Your task to perform on an android device: set the timer Image 0: 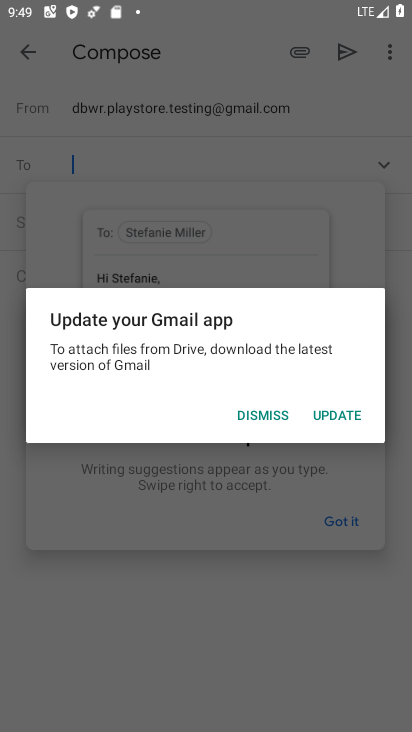
Step 0: press home button
Your task to perform on an android device: set the timer Image 1: 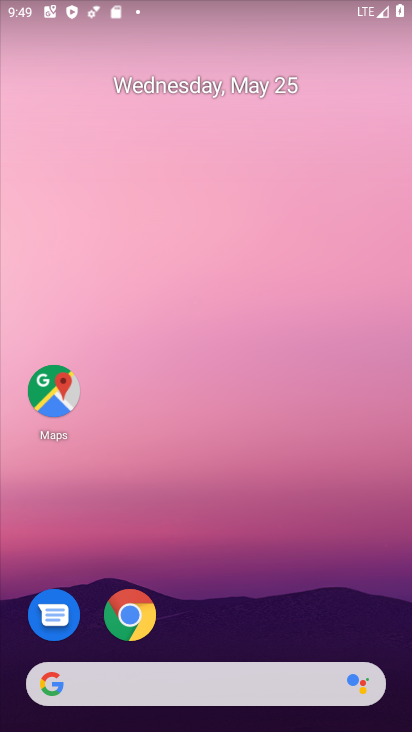
Step 1: drag from (234, 583) to (175, 62)
Your task to perform on an android device: set the timer Image 2: 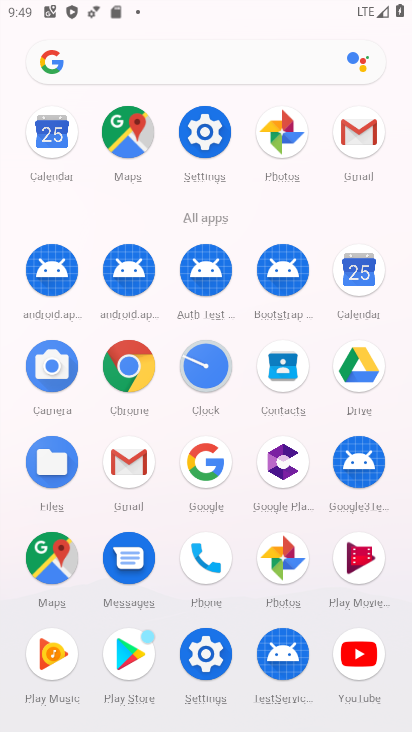
Step 2: click (213, 361)
Your task to perform on an android device: set the timer Image 3: 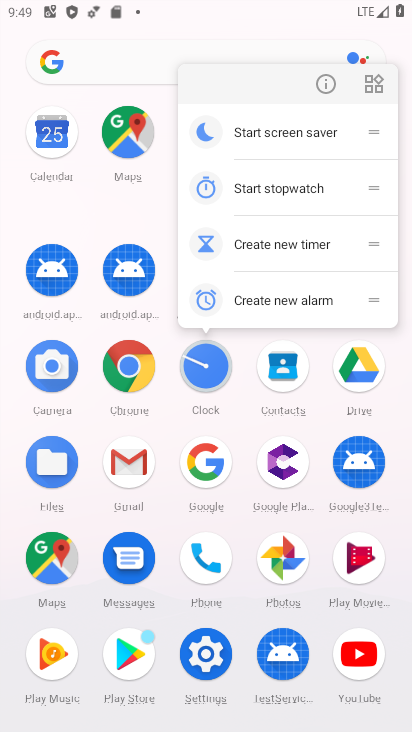
Step 3: click (213, 361)
Your task to perform on an android device: set the timer Image 4: 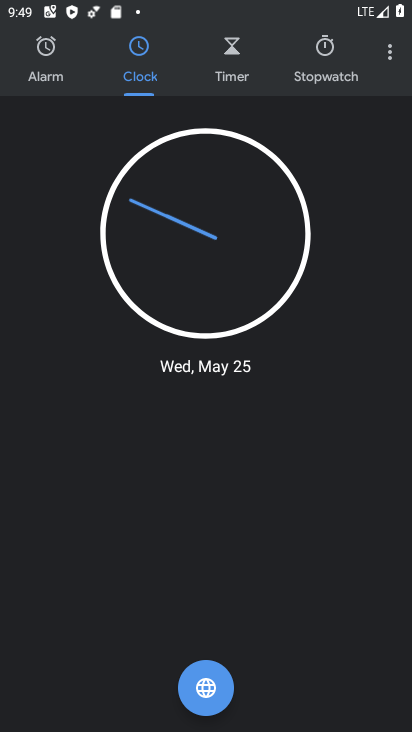
Step 4: click (226, 72)
Your task to perform on an android device: set the timer Image 5: 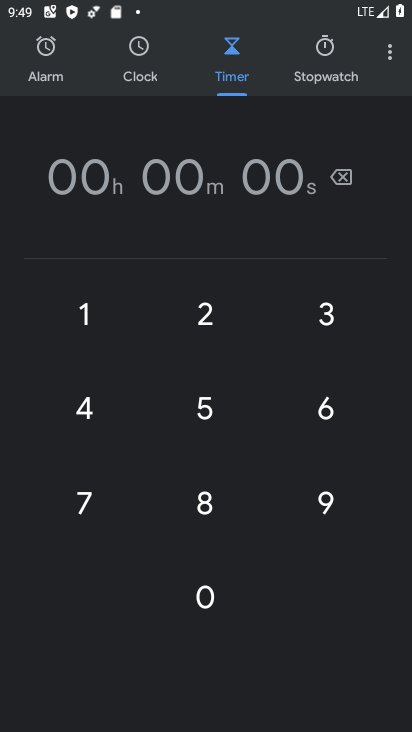
Step 5: click (91, 312)
Your task to perform on an android device: set the timer Image 6: 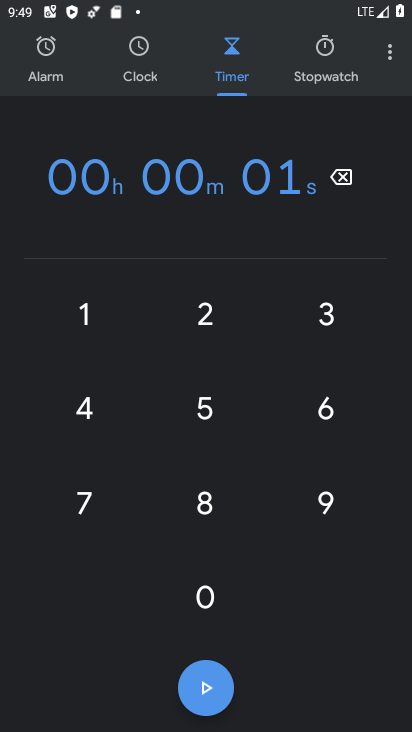
Step 6: task complete